Your task to perform on an android device: move an email to a new category in the gmail app Image 0: 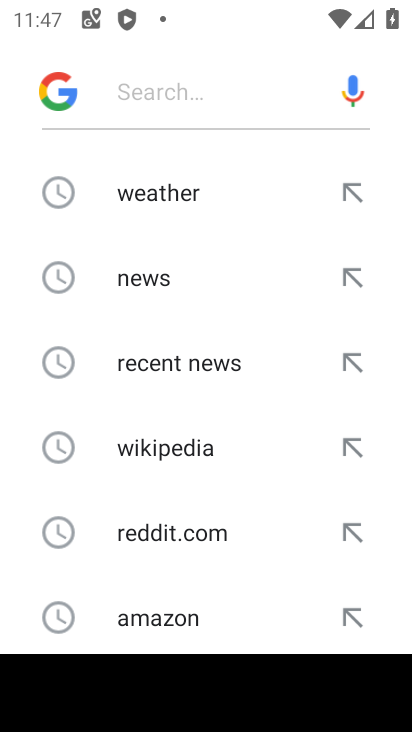
Step 0: drag from (215, 560) to (297, 115)
Your task to perform on an android device: move an email to a new category in the gmail app Image 1: 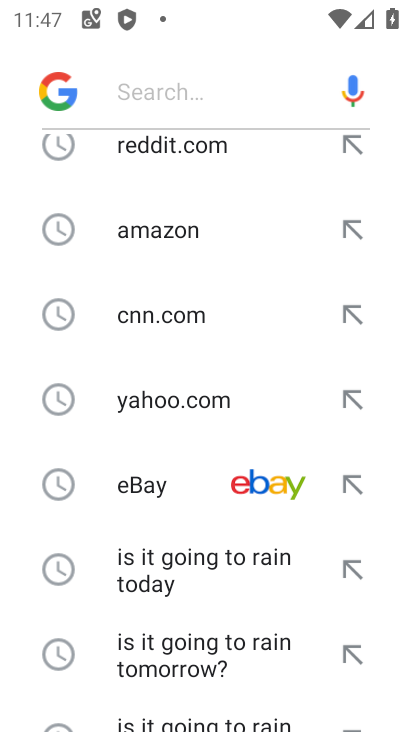
Step 1: press home button
Your task to perform on an android device: move an email to a new category in the gmail app Image 2: 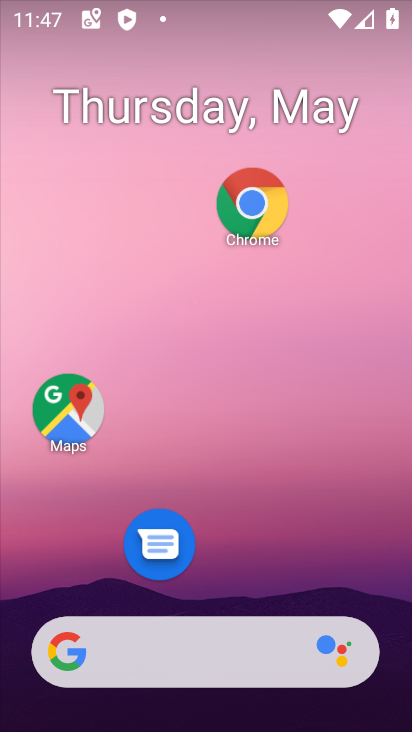
Step 2: drag from (230, 597) to (159, 110)
Your task to perform on an android device: move an email to a new category in the gmail app Image 3: 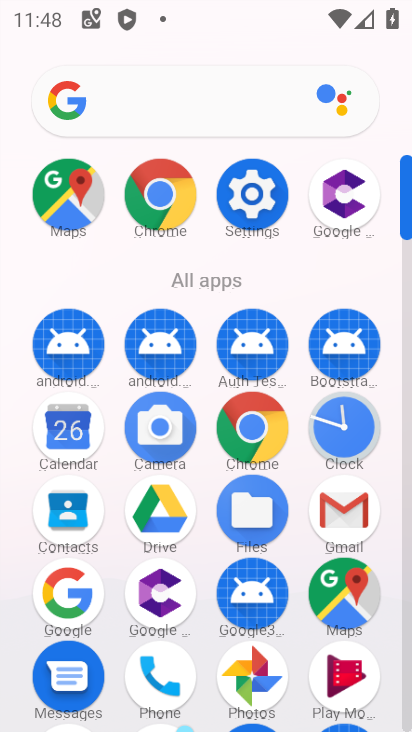
Step 3: click (368, 508)
Your task to perform on an android device: move an email to a new category in the gmail app Image 4: 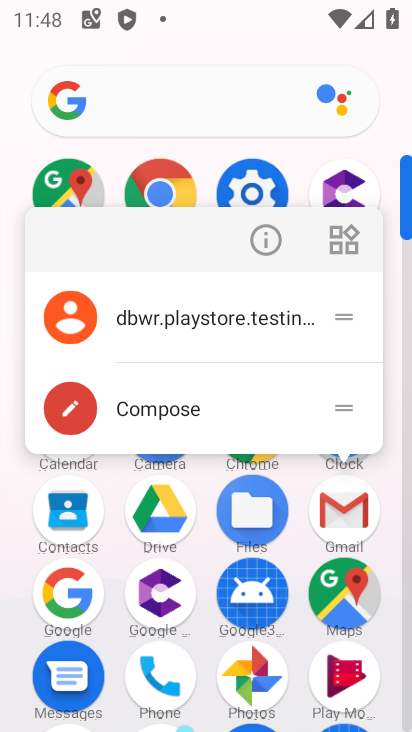
Step 4: click (265, 235)
Your task to perform on an android device: move an email to a new category in the gmail app Image 5: 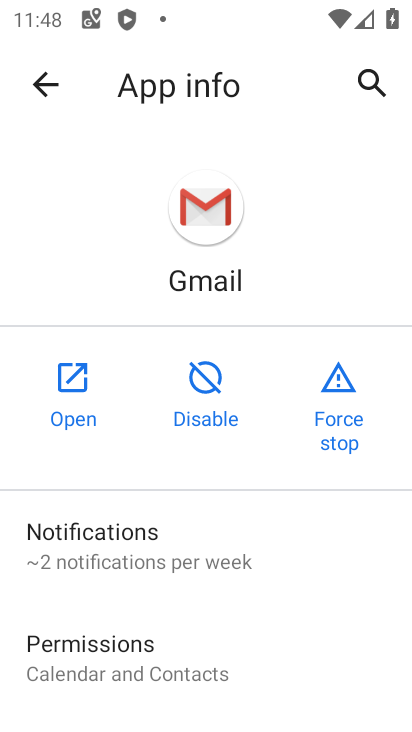
Step 5: click (78, 383)
Your task to perform on an android device: move an email to a new category in the gmail app Image 6: 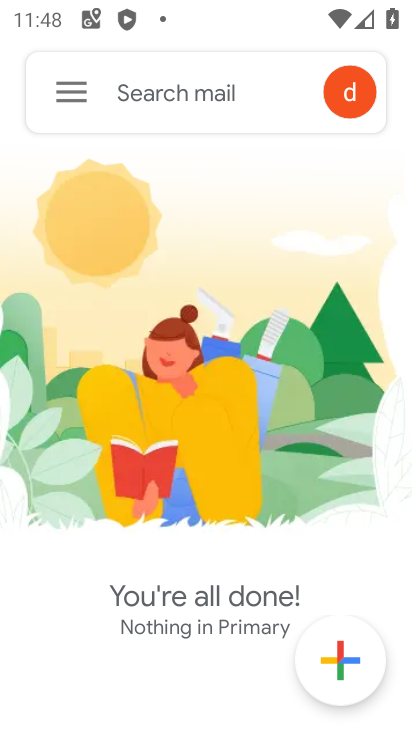
Step 6: click (71, 91)
Your task to perform on an android device: move an email to a new category in the gmail app Image 7: 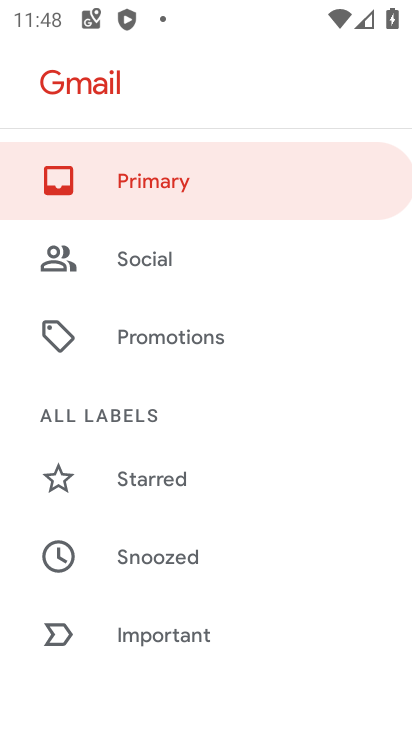
Step 7: drag from (150, 633) to (283, 116)
Your task to perform on an android device: move an email to a new category in the gmail app Image 8: 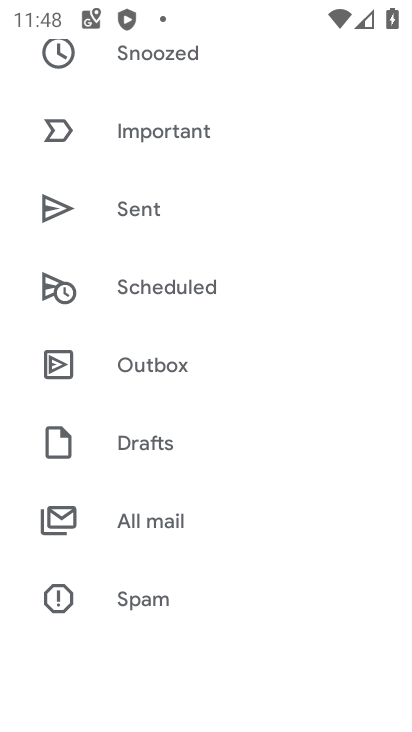
Step 8: drag from (201, 523) to (333, 103)
Your task to perform on an android device: move an email to a new category in the gmail app Image 9: 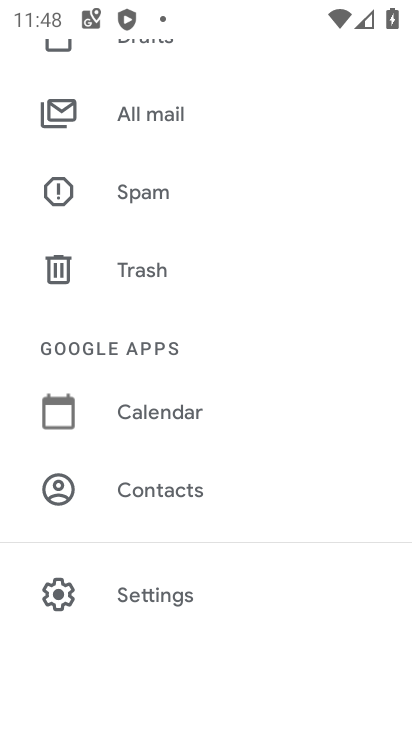
Step 9: drag from (145, 534) to (216, 290)
Your task to perform on an android device: move an email to a new category in the gmail app Image 10: 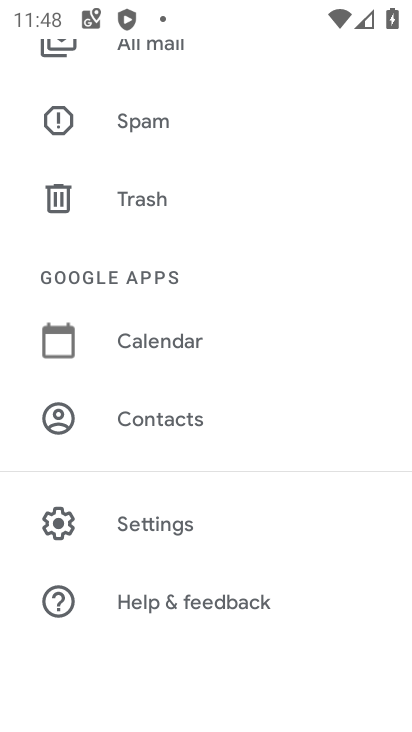
Step 10: click (167, 535)
Your task to perform on an android device: move an email to a new category in the gmail app Image 11: 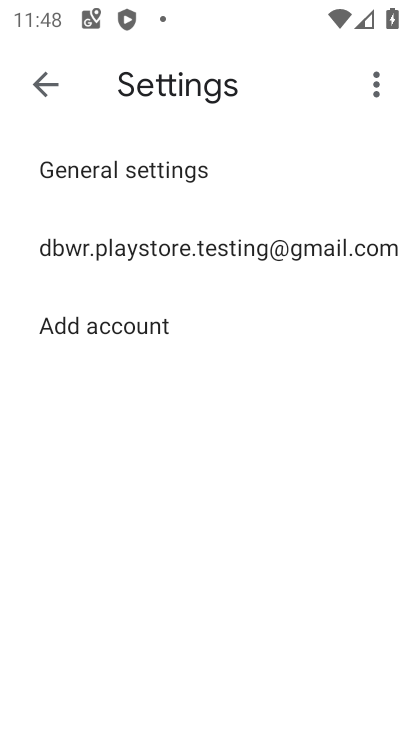
Step 11: click (29, 87)
Your task to perform on an android device: move an email to a new category in the gmail app Image 12: 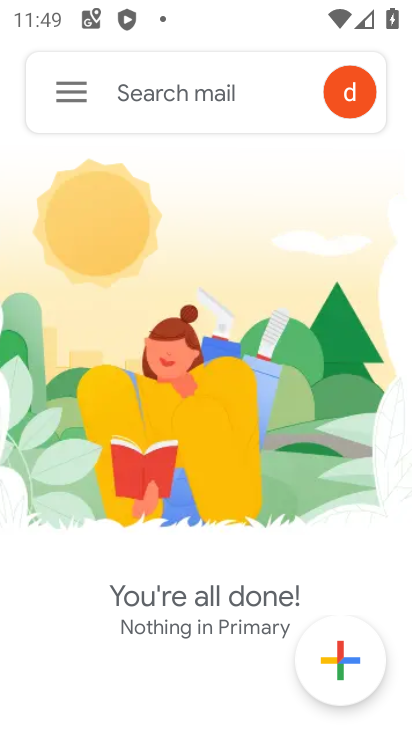
Step 12: click (64, 98)
Your task to perform on an android device: move an email to a new category in the gmail app Image 13: 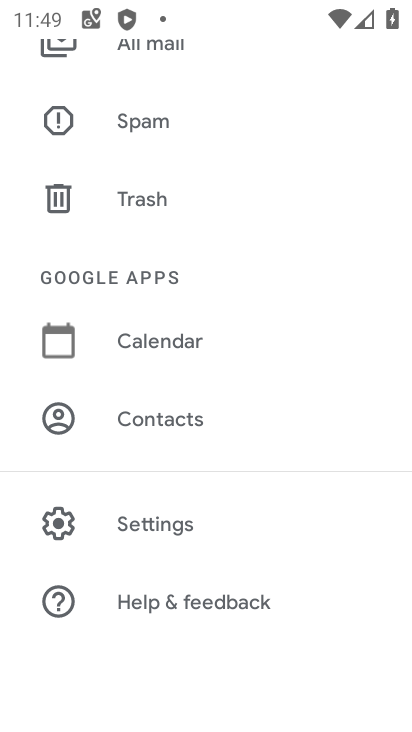
Step 13: drag from (201, 192) to (262, 696)
Your task to perform on an android device: move an email to a new category in the gmail app Image 14: 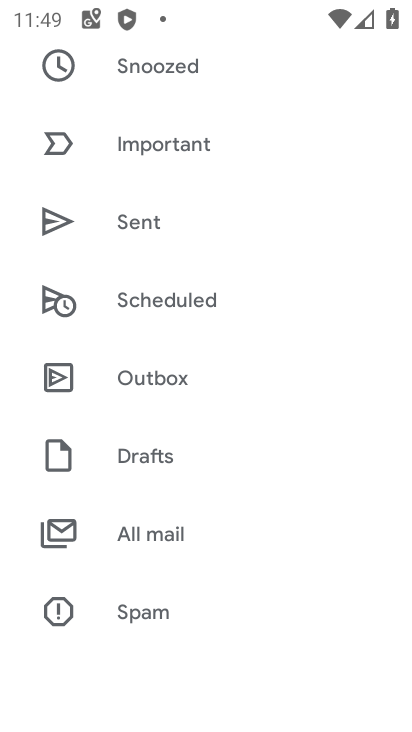
Step 14: drag from (177, 206) to (314, 718)
Your task to perform on an android device: move an email to a new category in the gmail app Image 15: 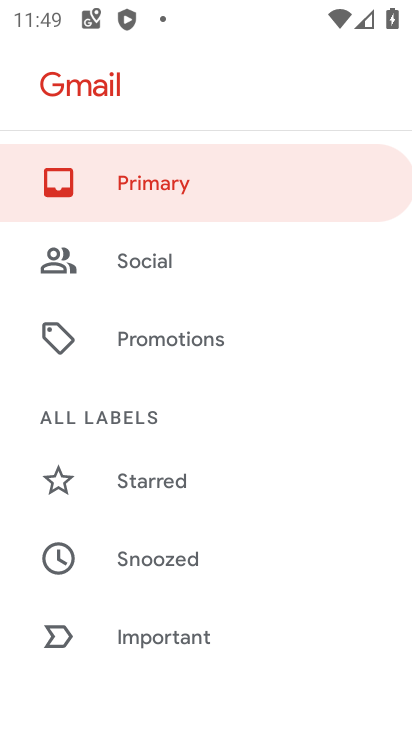
Step 15: click (169, 174)
Your task to perform on an android device: move an email to a new category in the gmail app Image 16: 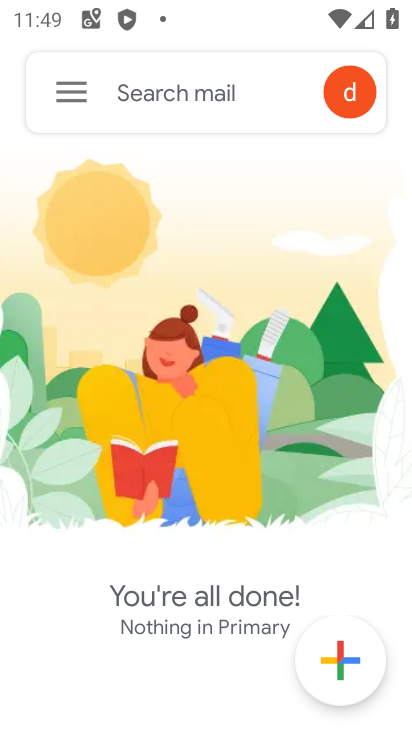
Step 16: task complete